Your task to perform on an android device: Check the news Image 0: 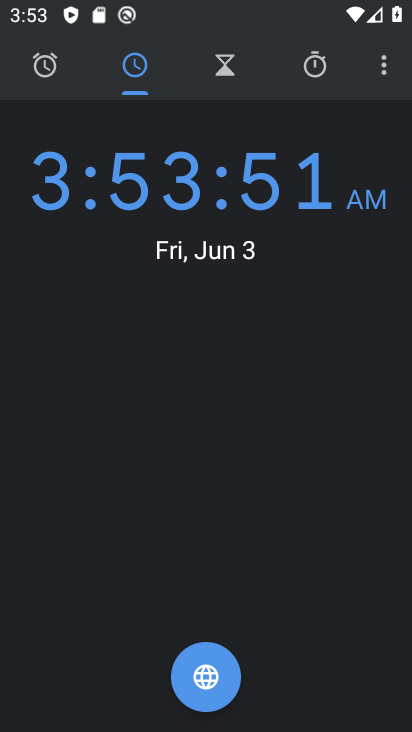
Step 0: press home button
Your task to perform on an android device: Check the news Image 1: 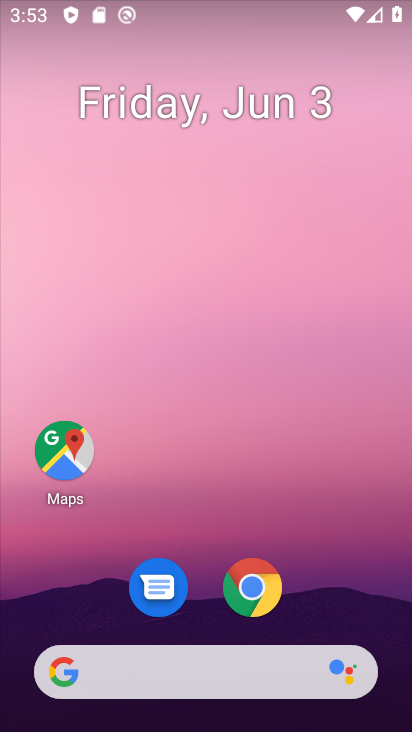
Step 1: task complete